Your task to perform on an android device: change timer sound Image 0: 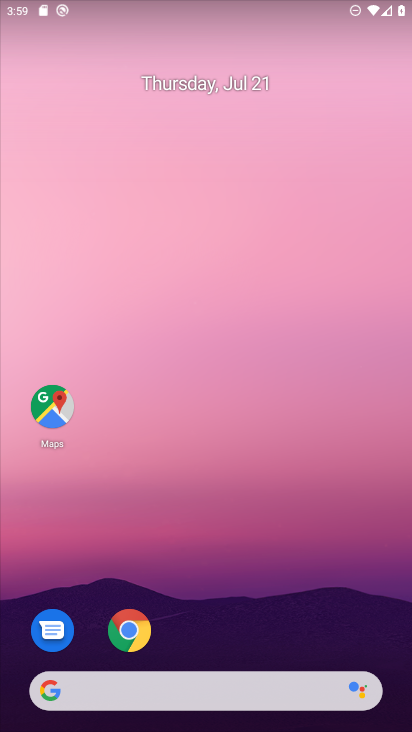
Step 0: drag from (239, 674) to (242, 75)
Your task to perform on an android device: change timer sound Image 1: 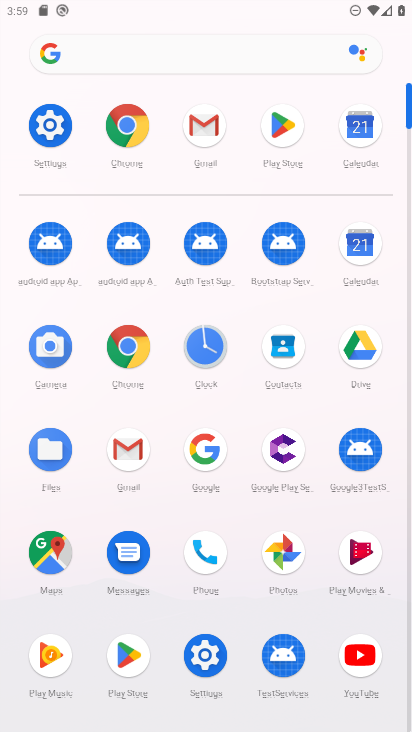
Step 1: click (201, 350)
Your task to perform on an android device: change timer sound Image 2: 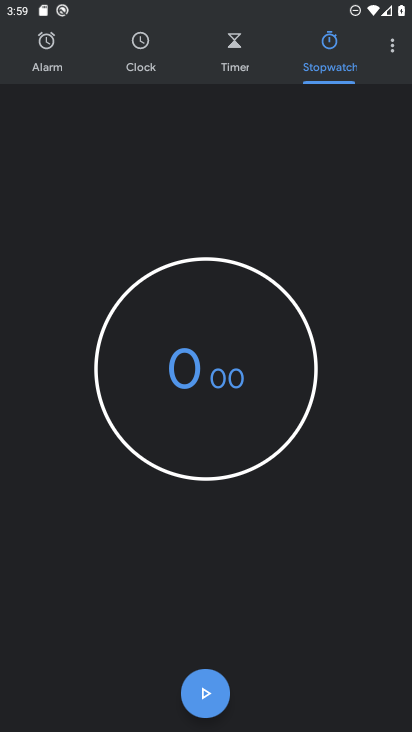
Step 2: click (385, 53)
Your task to perform on an android device: change timer sound Image 3: 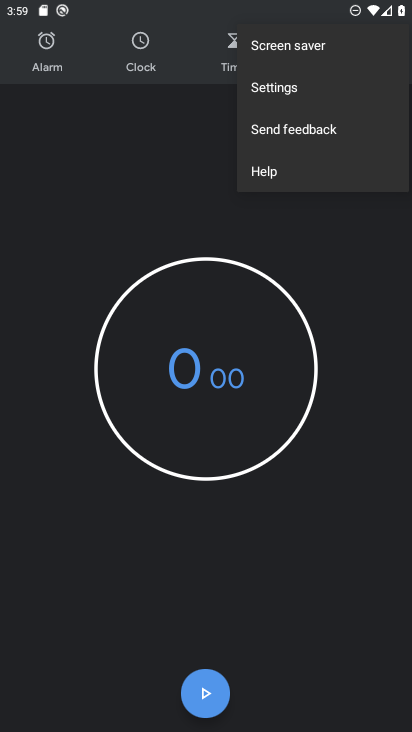
Step 3: click (290, 93)
Your task to perform on an android device: change timer sound Image 4: 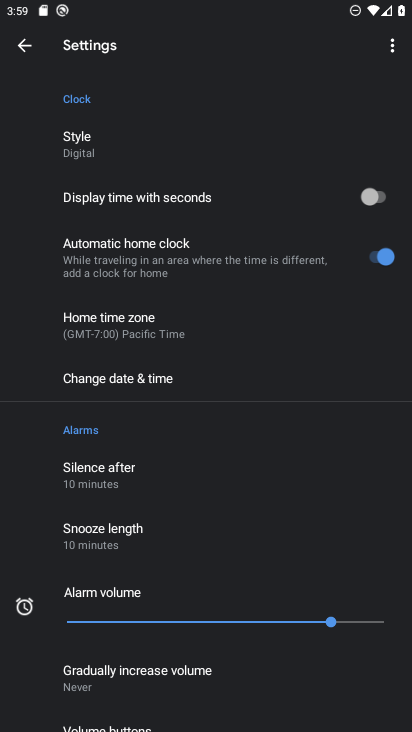
Step 4: drag from (158, 608) to (130, 200)
Your task to perform on an android device: change timer sound Image 5: 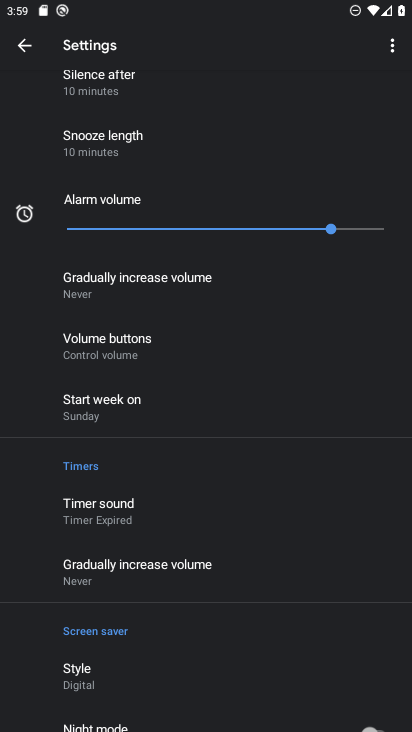
Step 5: click (96, 525)
Your task to perform on an android device: change timer sound Image 6: 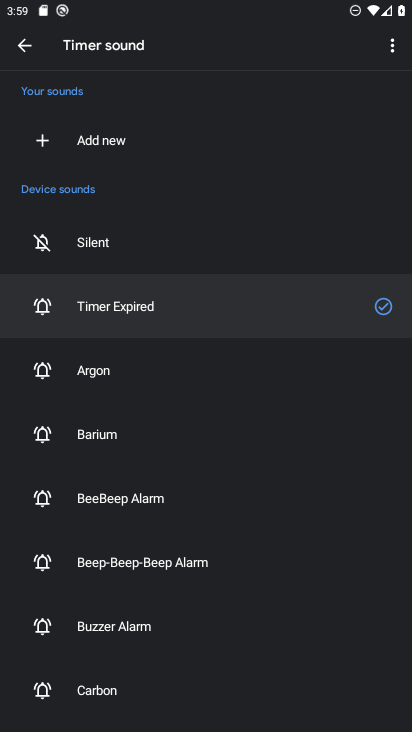
Step 6: click (125, 372)
Your task to perform on an android device: change timer sound Image 7: 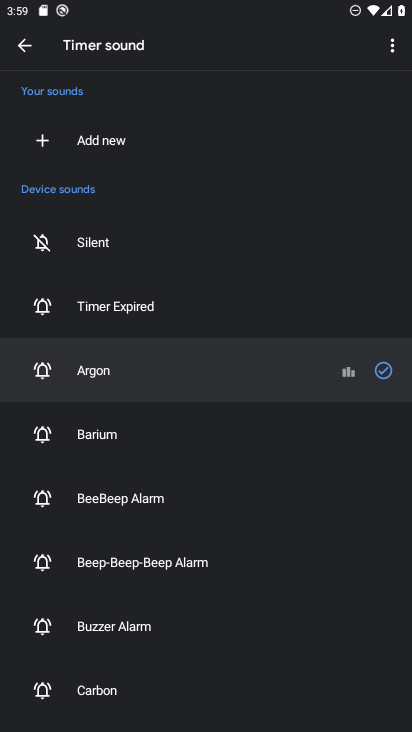
Step 7: task complete